Your task to perform on an android device: turn off sleep mode Image 0: 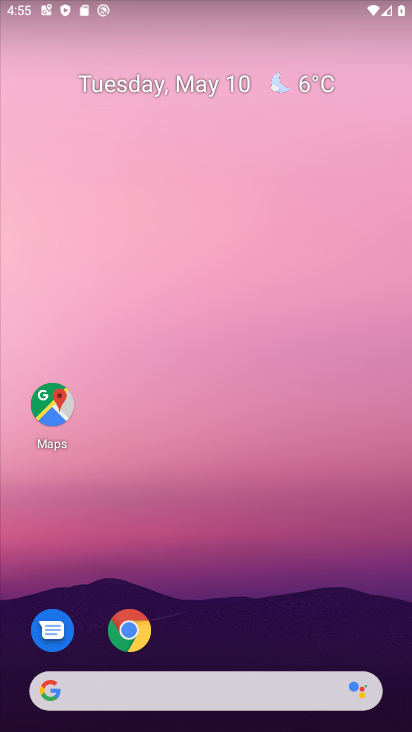
Step 0: drag from (263, 499) to (227, 181)
Your task to perform on an android device: turn off sleep mode Image 1: 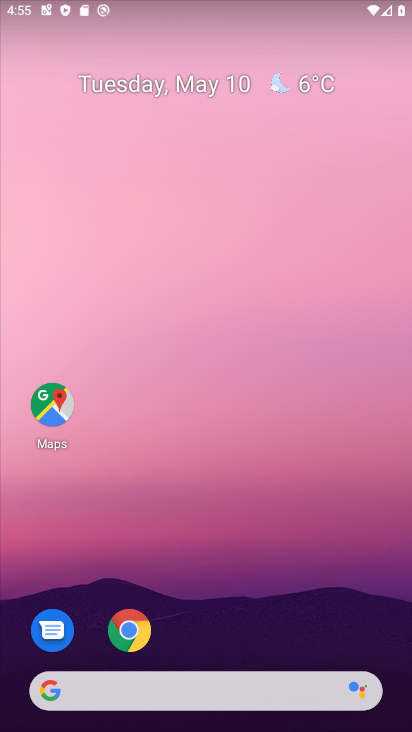
Step 1: click (277, 516)
Your task to perform on an android device: turn off sleep mode Image 2: 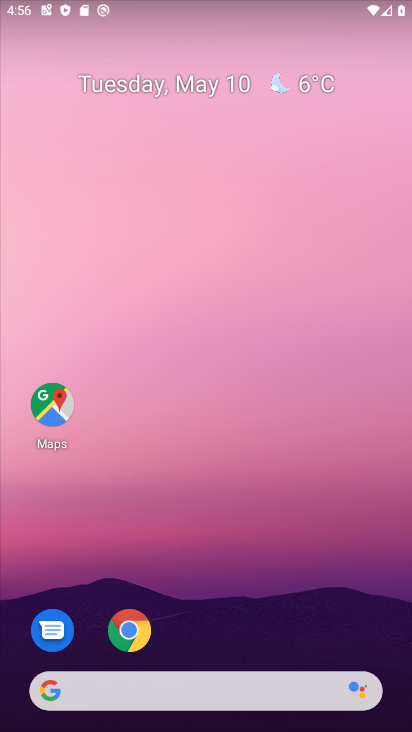
Step 2: drag from (265, 544) to (279, 128)
Your task to perform on an android device: turn off sleep mode Image 3: 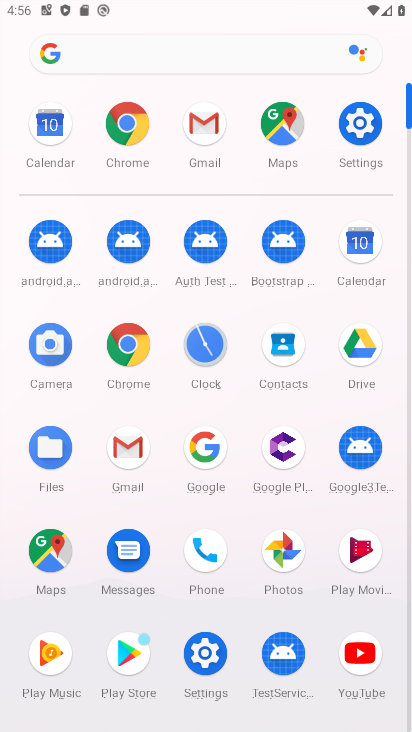
Step 3: click (373, 110)
Your task to perform on an android device: turn off sleep mode Image 4: 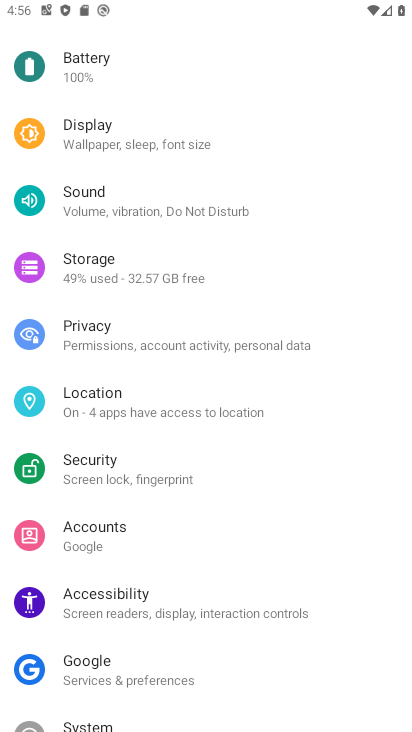
Step 4: drag from (128, 222) to (207, 494)
Your task to perform on an android device: turn off sleep mode Image 5: 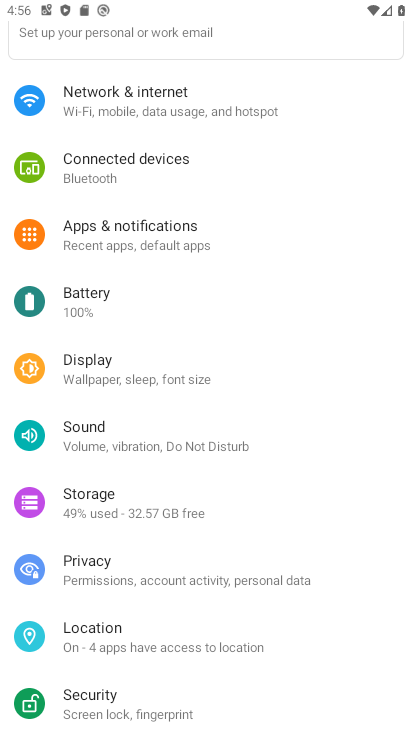
Step 5: click (132, 360)
Your task to perform on an android device: turn off sleep mode Image 6: 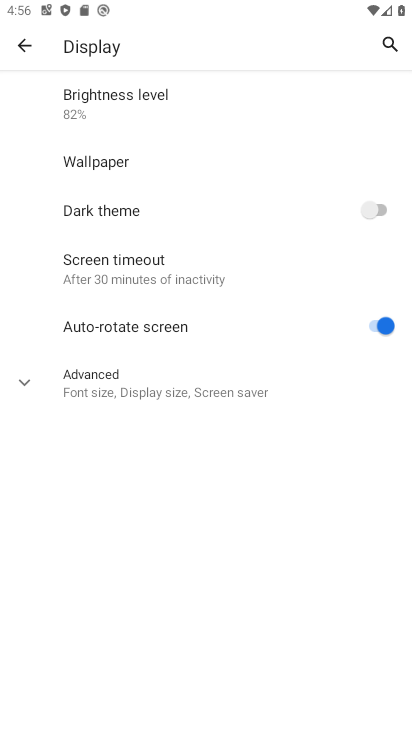
Step 6: click (126, 261)
Your task to perform on an android device: turn off sleep mode Image 7: 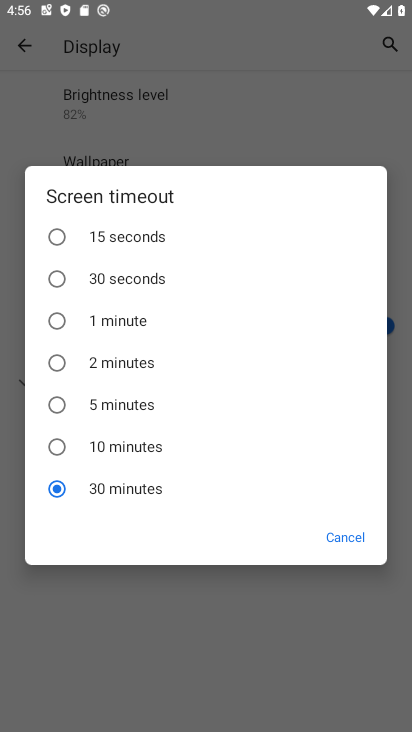
Step 7: task complete